Your task to perform on an android device: Open location settings Image 0: 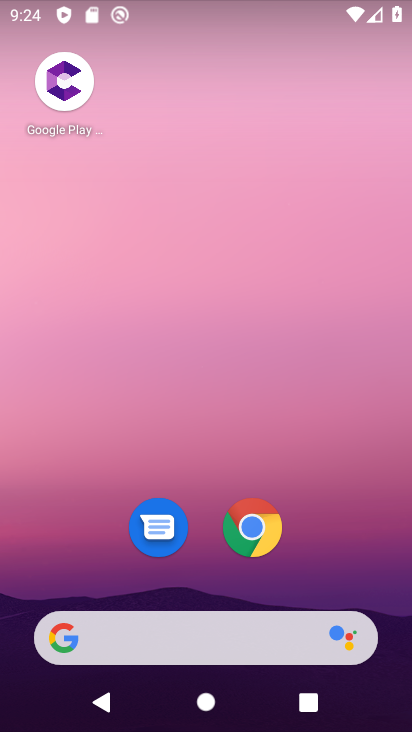
Step 0: task complete